Your task to perform on an android device: open chrome privacy settings Image 0: 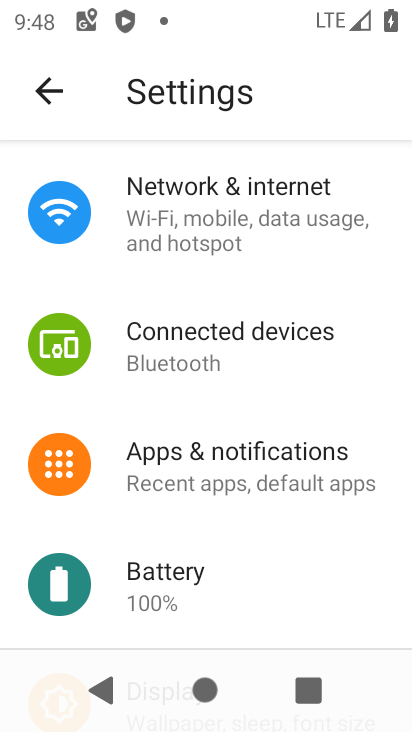
Step 0: press home button
Your task to perform on an android device: open chrome privacy settings Image 1: 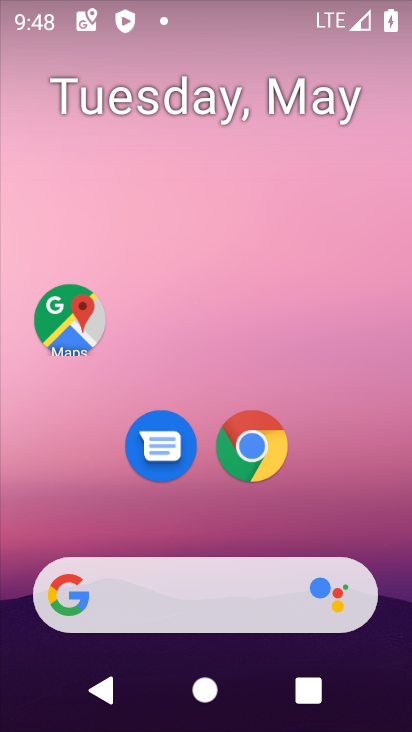
Step 1: click (254, 448)
Your task to perform on an android device: open chrome privacy settings Image 2: 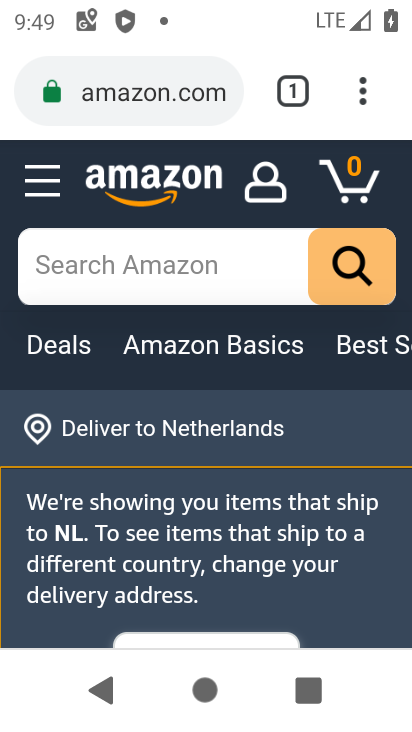
Step 2: drag from (357, 101) to (148, 470)
Your task to perform on an android device: open chrome privacy settings Image 3: 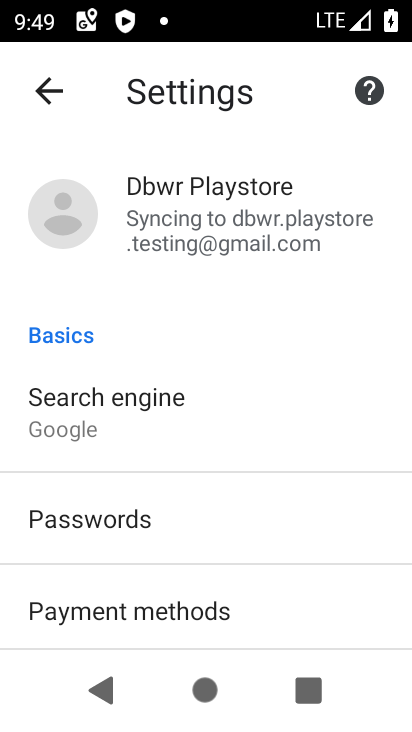
Step 3: drag from (136, 551) to (99, 102)
Your task to perform on an android device: open chrome privacy settings Image 4: 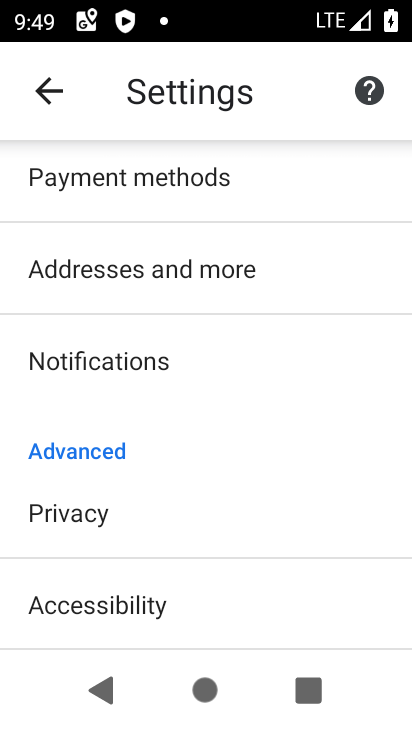
Step 4: click (109, 526)
Your task to perform on an android device: open chrome privacy settings Image 5: 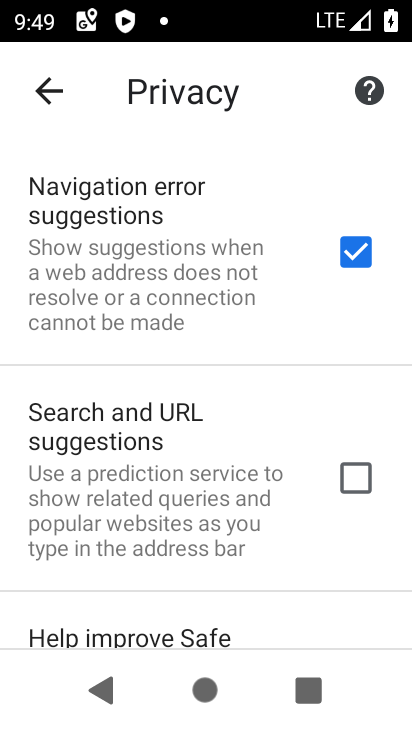
Step 5: task complete